Your task to perform on an android device: Open Wikipedia Image 0: 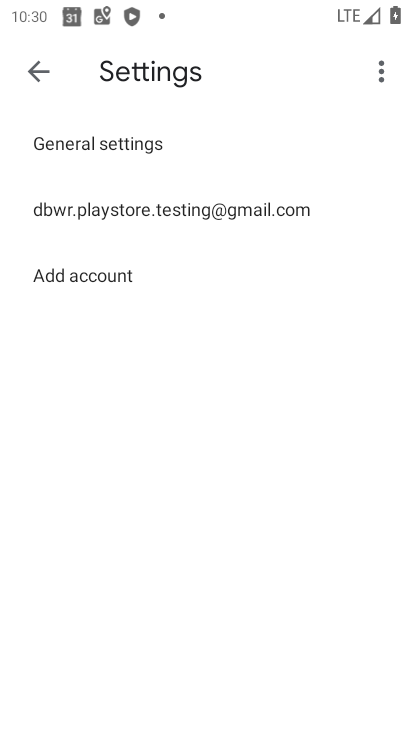
Step 0: press home button
Your task to perform on an android device: Open Wikipedia Image 1: 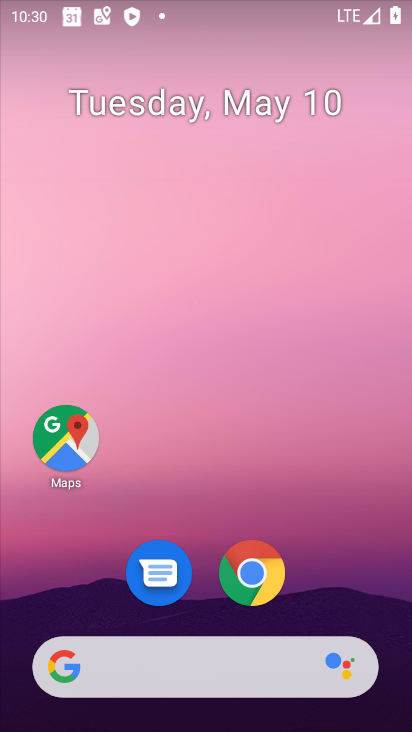
Step 1: click (254, 577)
Your task to perform on an android device: Open Wikipedia Image 2: 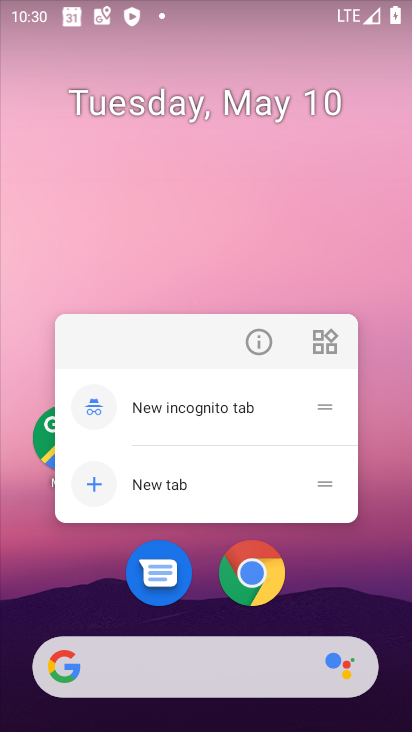
Step 2: click (254, 577)
Your task to perform on an android device: Open Wikipedia Image 3: 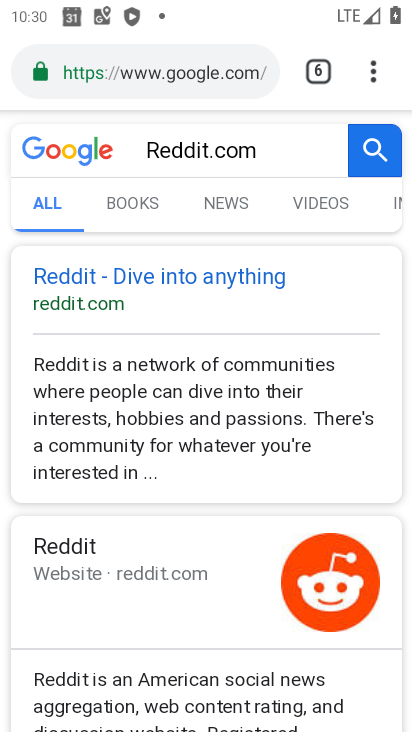
Step 3: click (375, 69)
Your task to perform on an android device: Open Wikipedia Image 4: 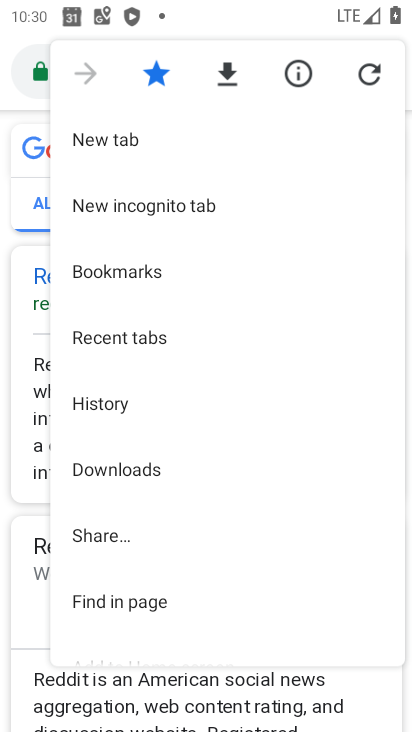
Step 4: click (117, 143)
Your task to perform on an android device: Open Wikipedia Image 5: 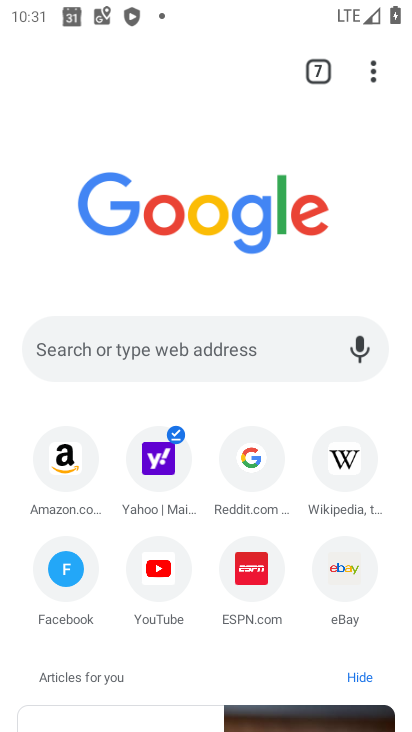
Step 5: click (337, 456)
Your task to perform on an android device: Open Wikipedia Image 6: 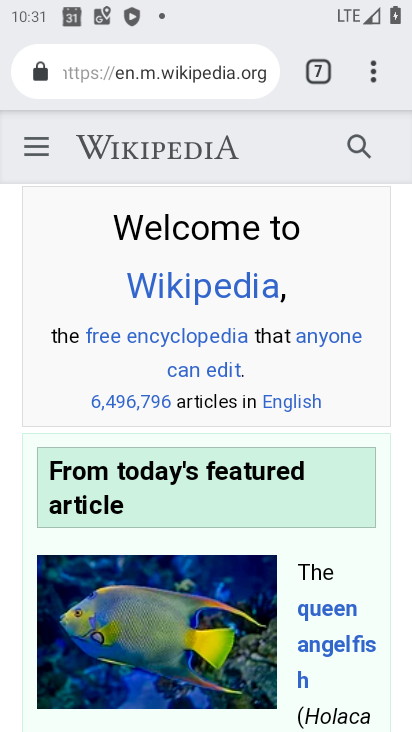
Step 6: task complete